Your task to perform on an android device: change notifications settings Image 0: 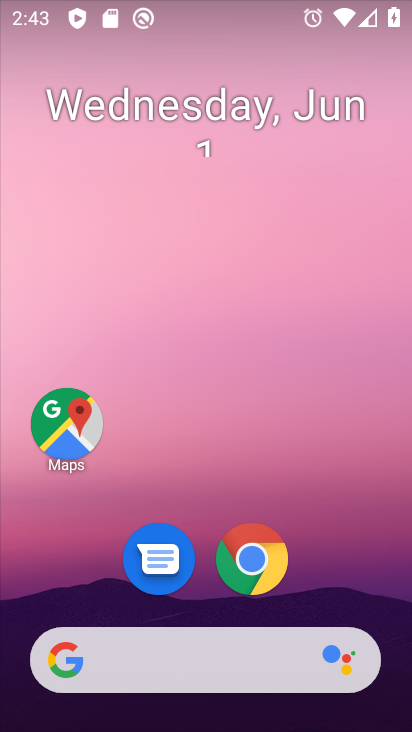
Step 0: drag from (336, 595) to (323, 19)
Your task to perform on an android device: change notifications settings Image 1: 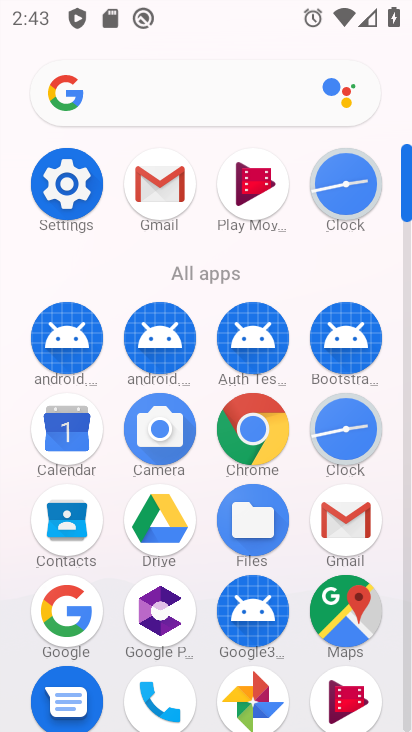
Step 1: click (65, 185)
Your task to perform on an android device: change notifications settings Image 2: 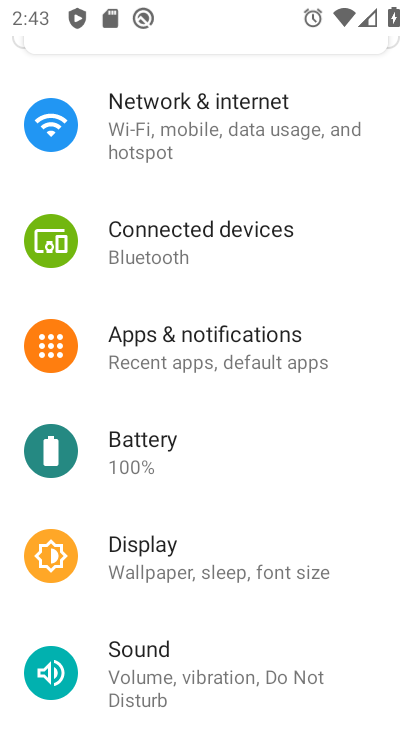
Step 2: click (200, 363)
Your task to perform on an android device: change notifications settings Image 3: 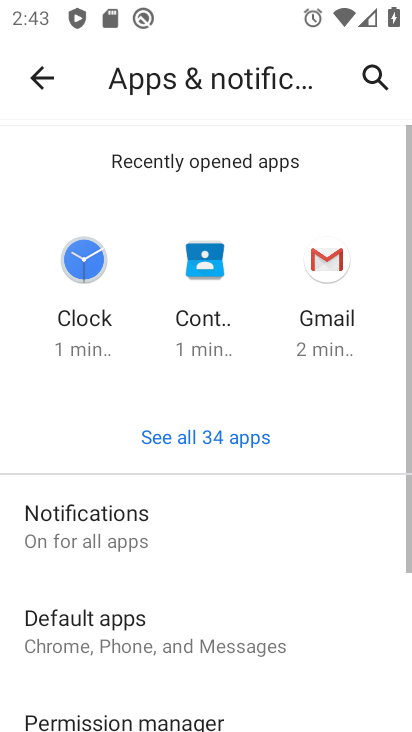
Step 3: click (133, 517)
Your task to perform on an android device: change notifications settings Image 4: 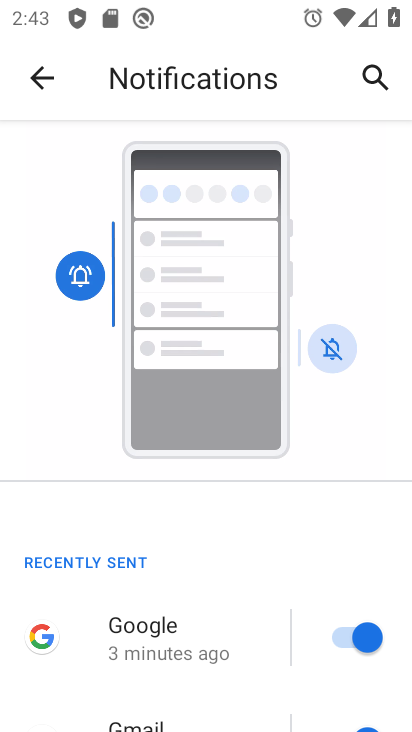
Step 4: task complete